Your task to perform on an android device: search for starred emails in the gmail app Image 0: 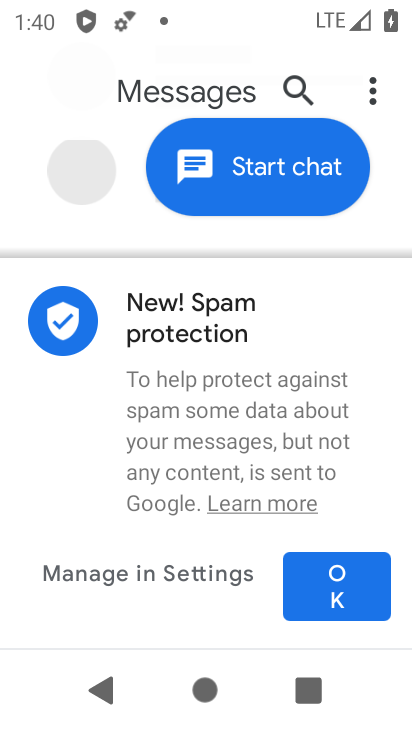
Step 0: press home button
Your task to perform on an android device: search for starred emails in the gmail app Image 1: 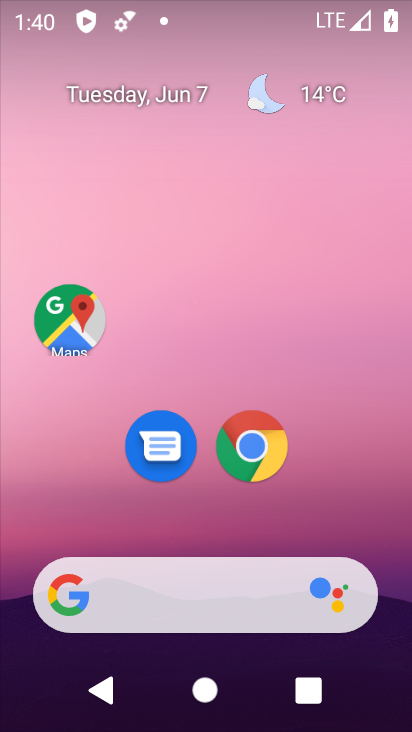
Step 1: drag from (191, 577) to (242, 21)
Your task to perform on an android device: search for starred emails in the gmail app Image 2: 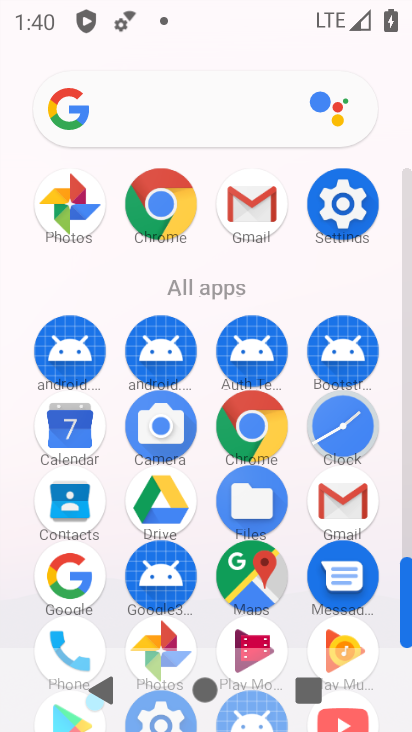
Step 2: click (325, 503)
Your task to perform on an android device: search for starred emails in the gmail app Image 3: 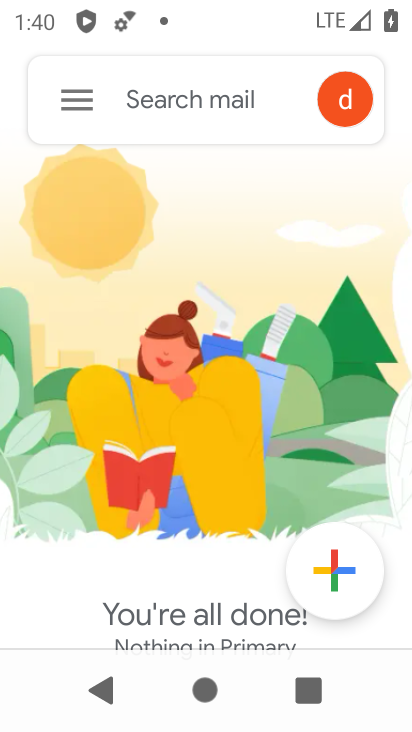
Step 3: click (72, 108)
Your task to perform on an android device: search for starred emails in the gmail app Image 4: 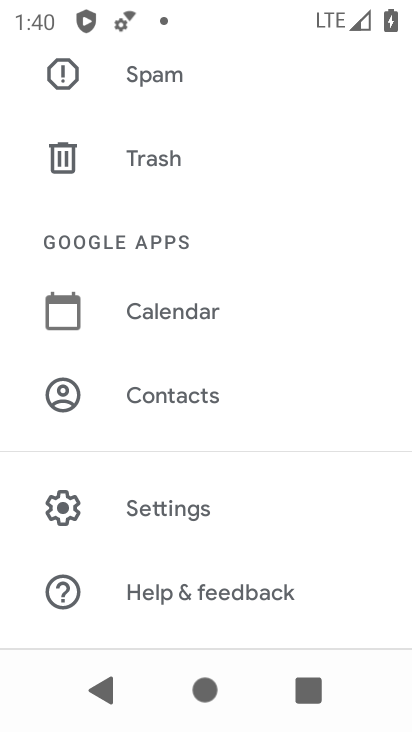
Step 4: drag from (213, 183) to (240, 683)
Your task to perform on an android device: search for starred emails in the gmail app Image 5: 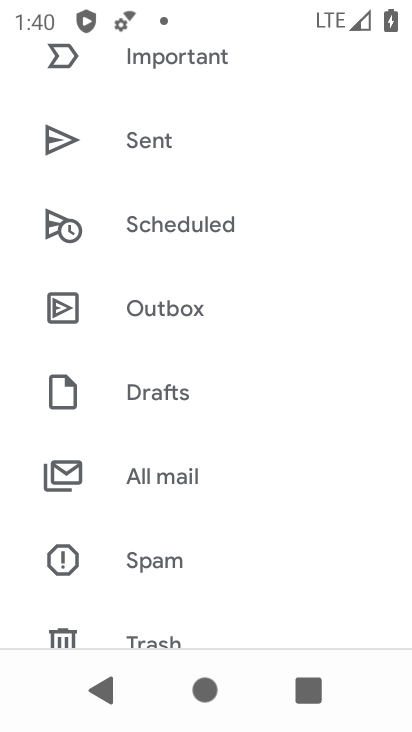
Step 5: drag from (196, 213) to (225, 625)
Your task to perform on an android device: search for starred emails in the gmail app Image 6: 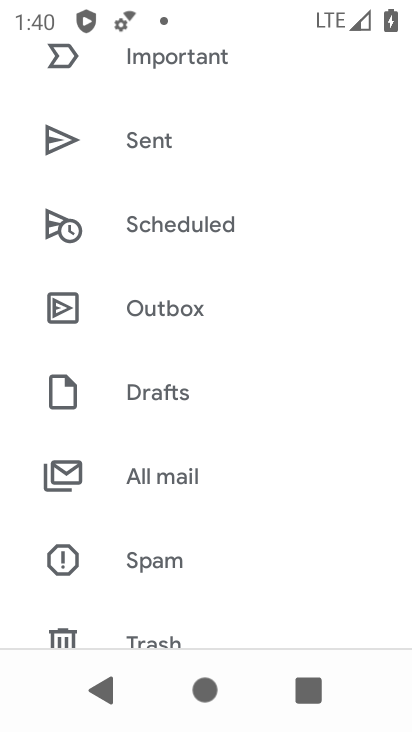
Step 6: drag from (230, 175) to (269, 590)
Your task to perform on an android device: search for starred emails in the gmail app Image 7: 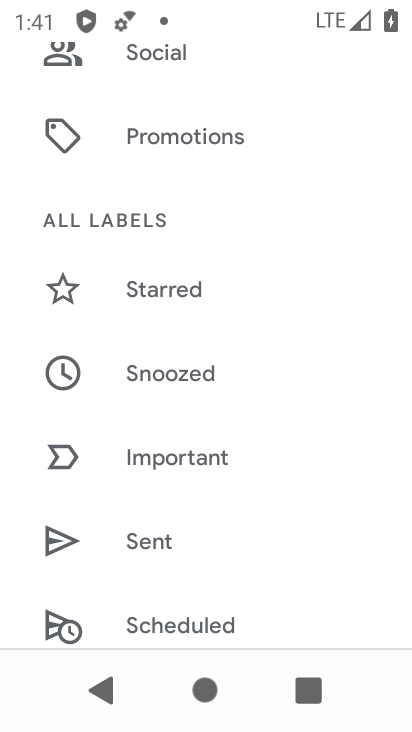
Step 7: click (190, 295)
Your task to perform on an android device: search for starred emails in the gmail app Image 8: 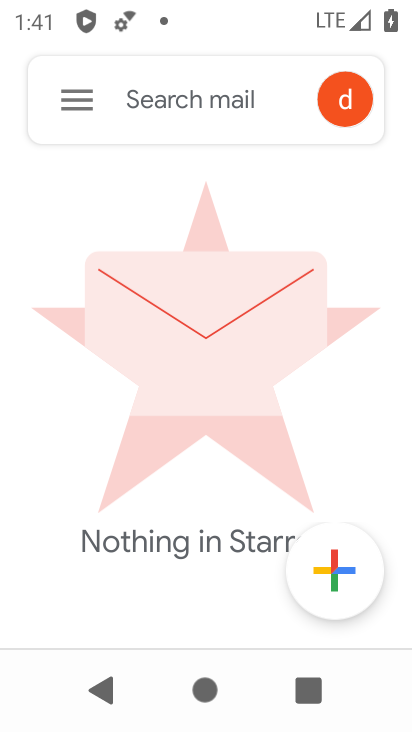
Step 8: task complete